Your task to perform on an android device: Open Youtube and go to "Your channel" Image 0: 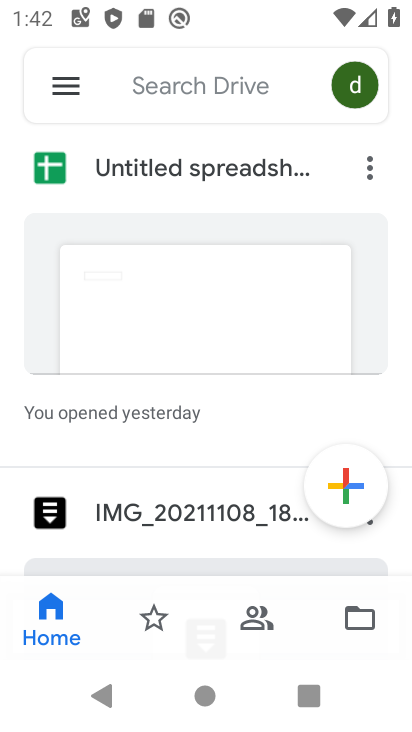
Step 0: press back button
Your task to perform on an android device: Open Youtube and go to "Your channel" Image 1: 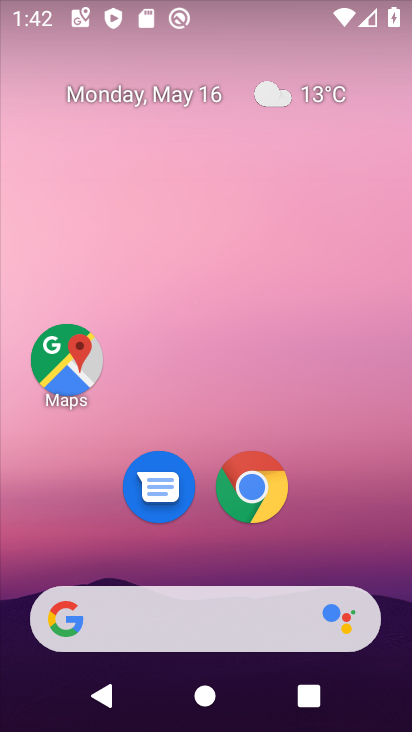
Step 1: drag from (340, 546) to (233, 2)
Your task to perform on an android device: Open Youtube and go to "Your channel" Image 2: 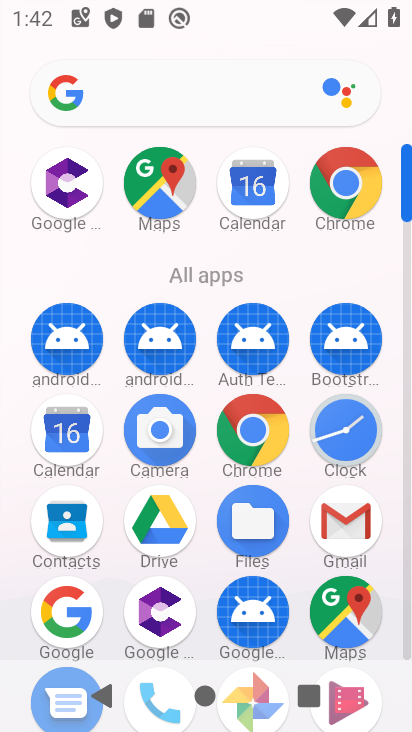
Step 2: drag from (3, 545) to (20, 176)
Your task to perform on an android device: Open Youtube and go to "Your channel" Image 3: 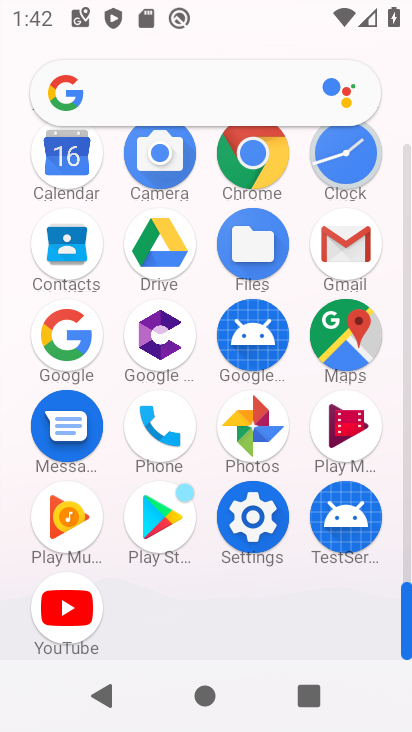
Step 3: click (64, 599)
Your task to perform on an android device: Open Youtube and go to "Your channel" Image 4: 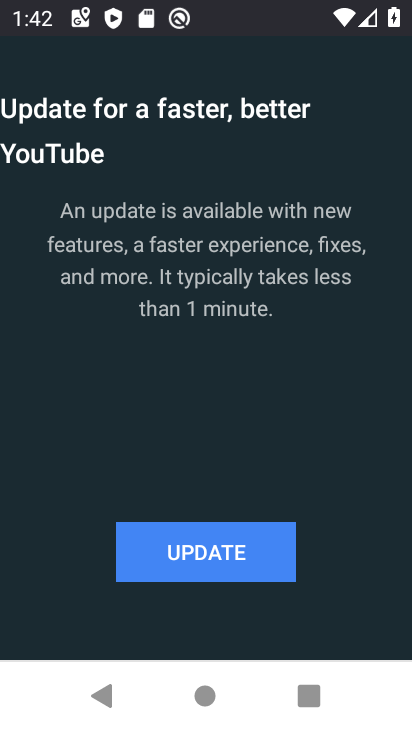
Step 4: click (234, 555)
Your task to perform on an android device: Open Youtube and go to "Your channel" Image 5: 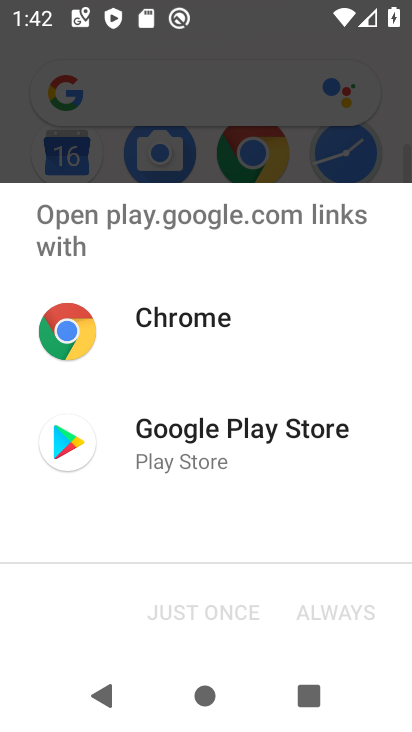
Step 5: click (201, 429)
Your task to perform on an android device: Open Youtube and go to "Your channel" Image 6: 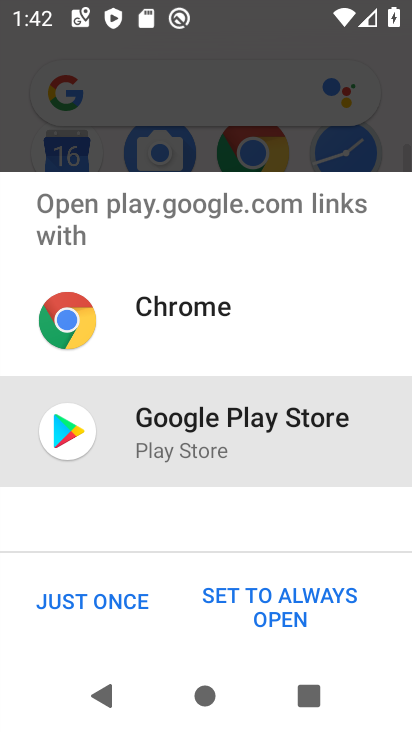
Step 6: click (103, 605)
Your task to perform on an android device: Open Youtube and go to "Your channel" Image 7: 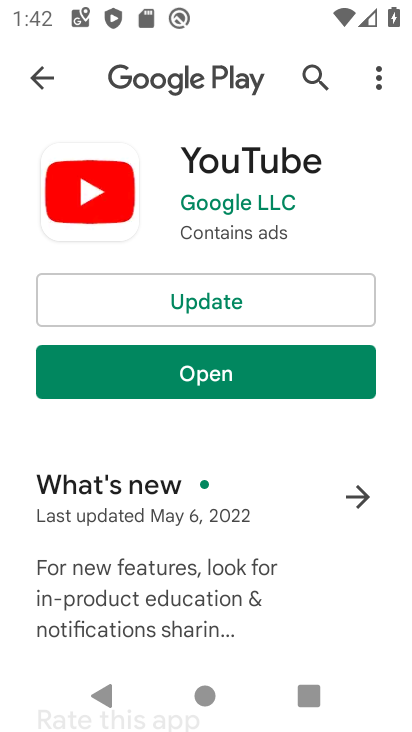
Step 7: click (240, 299)
Your task to perform on an android device: Open Youtube and go to "Your channel" Image 8: 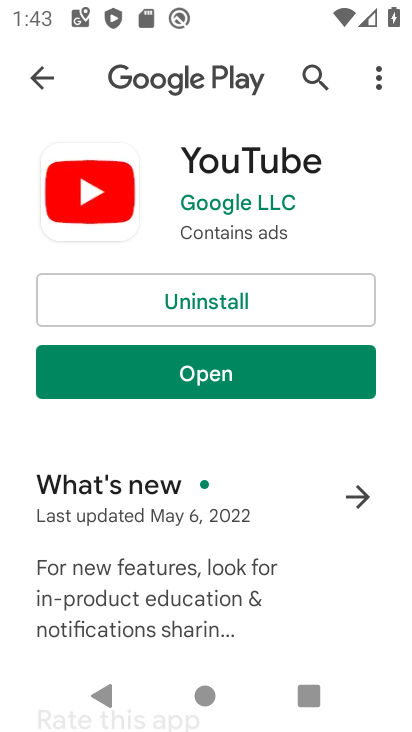
Step 8: click (241, 364)
Your task to perform on an android device: Open Youtube and go to "Your channel" Image 9: 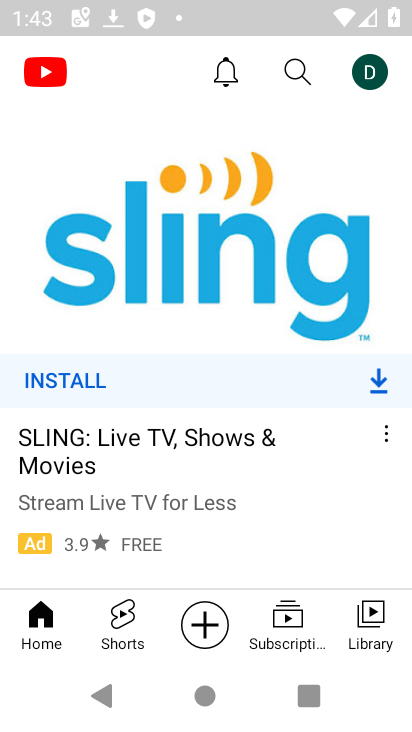
Step 9: click (381, 623)
Your task to perform on an android device: Open Youtube and go to "Your channel" Image 10: 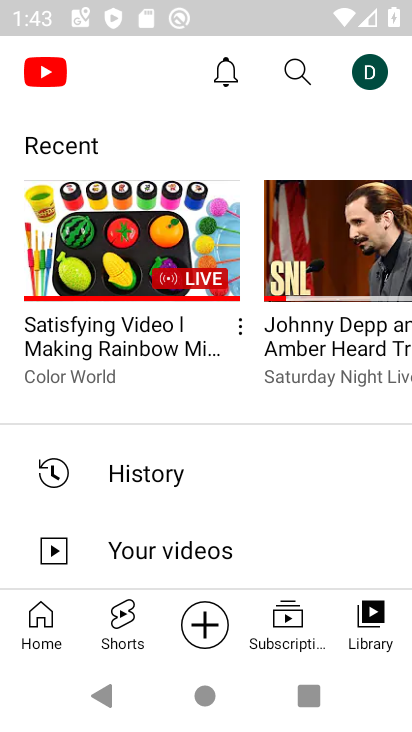
Step 10: drag from (371, 232) to (105, 233)
Your task to perform on an android device: Open Youtube and go to "Your channel" Image 11: 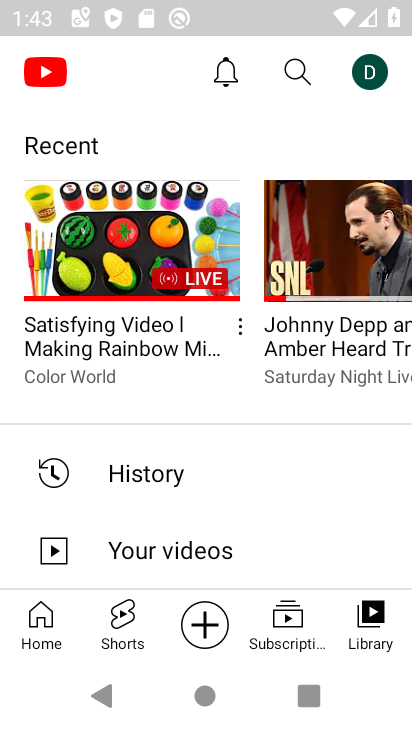
Step 11: drag from (339, 261) to (83, 285)
Your task to perform on an android device: Open Youtube and go to "Your channel" Image 12: 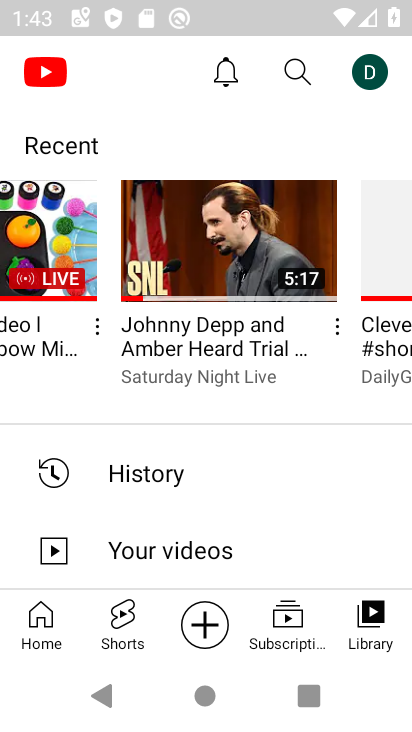
Step 12: drag from (367, 280) to (89, 271)
Your task to perform on an android device: Open Youtube and go to "Your channel" Image 13: 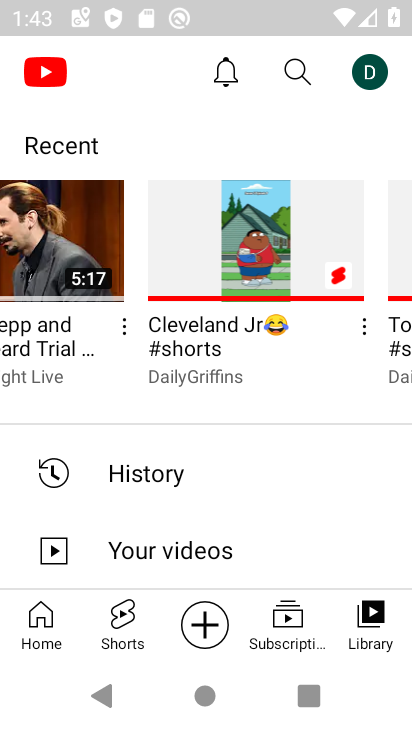
Step 13: drag from (289, 269) to (45, 247)
Your task to perform on an android device: Open Youtube and go to "Your channel" Image 14: 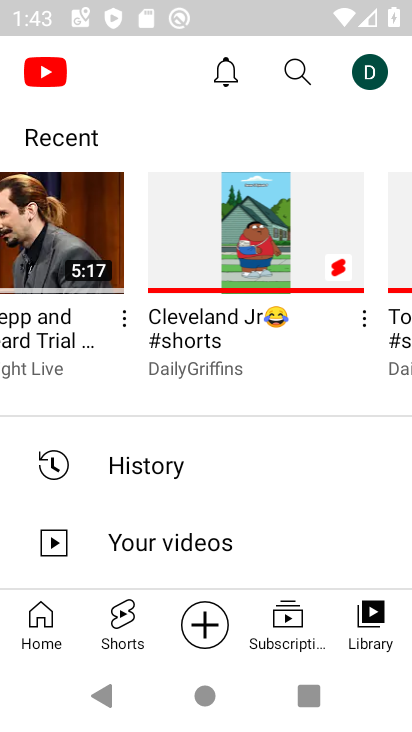
Step 14: drag from (361, 262) to (15, 244)
Your task to perform on an android device: Open Youtube and go to "Your channel" Image 15: 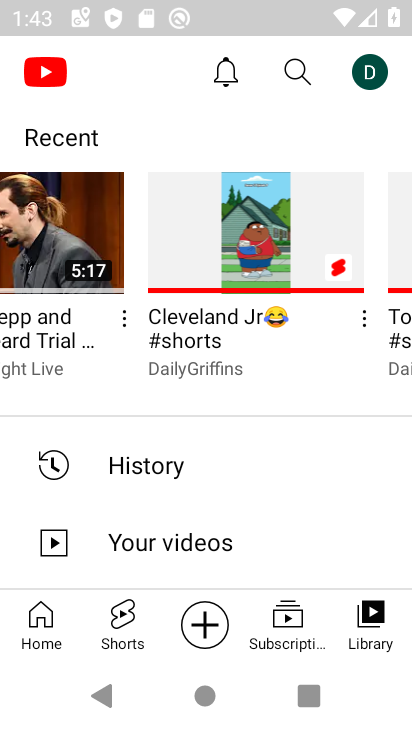
Step 15: drag from (366, 237) to (63, 220)
Your task to perform on an android device: Open Youtube and go to "Your channel" Image 16: 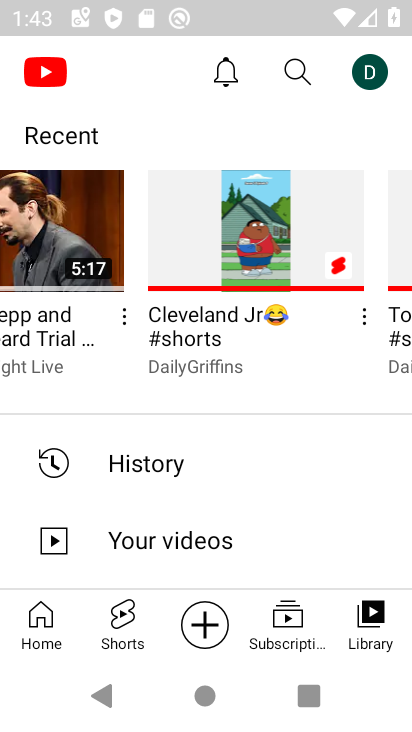
Step 16: drag from (329, 241) to (56, 246)
Your task to perform on an android device: Open Youtube and go to "Your channel" Image 17: 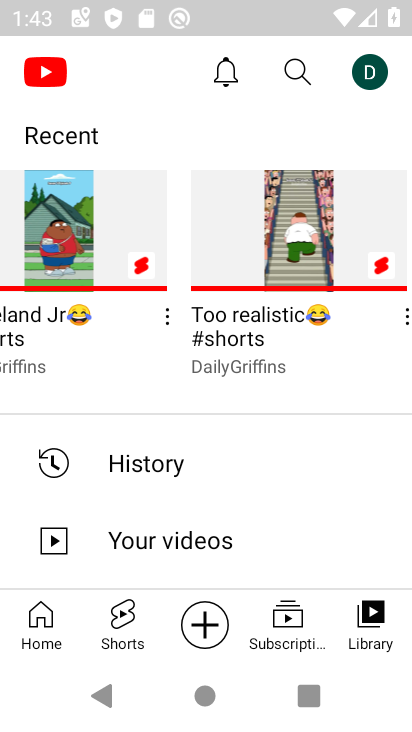
Step 17: drag from (243, 248) to (17, 237)
Your task to perform on an android device: Open Youtube and go to "Your channel" Image 18: 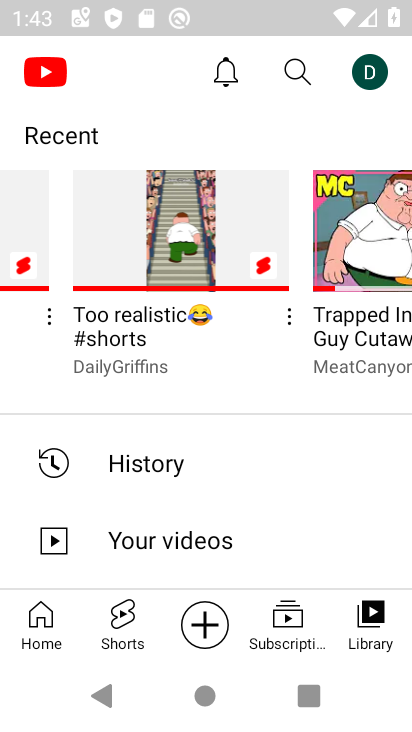
Step 18: drag from (306, 213) to (80, 212)
Your task to perform on an android device: Open Youtube and go to "Your channel" Image 19: 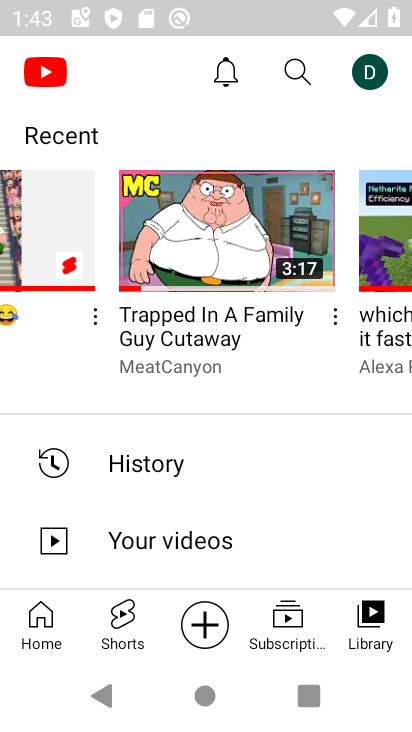
Step 19: drag from (396, 214) to (118, 224)
Your task to perform on an android device: Open Youtube and go to "Your channel" Image 20: 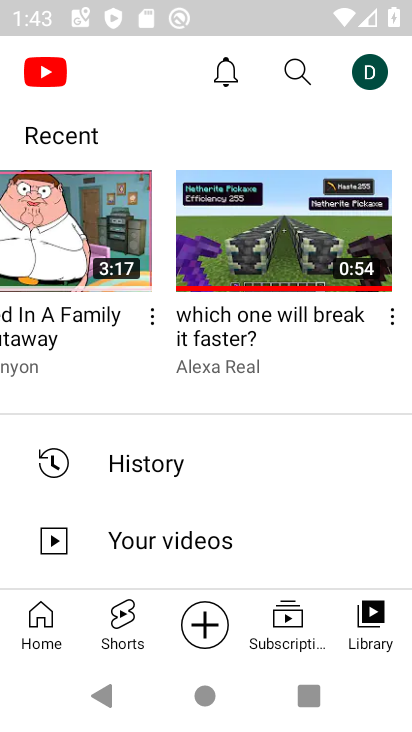
Step 20: drag from (264, 241) to (88, 248)
Your task to perform on an android device: Open Youtube and go to "Your channel" Image 21: 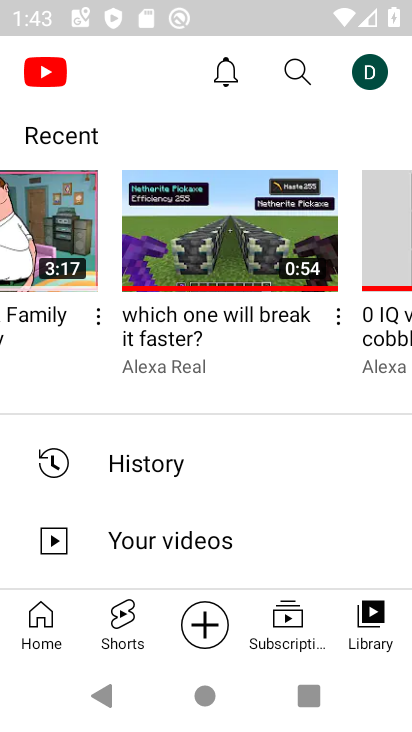
Step 21: drag from (271, 518) to (279, 123)
Your task to perform on an android device: Open Youtube and go to "Your channel" Image 22: 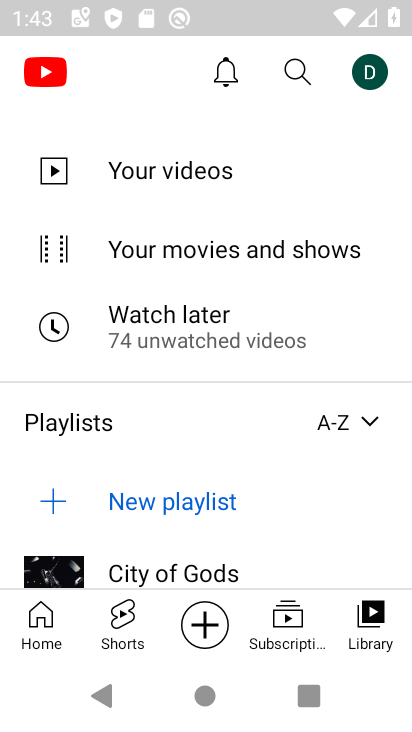
Step 22: drag from (272, 192) to (251, 429)
Your task to perform on an android device: Open Youtube and go to "Your channel" Image 23: 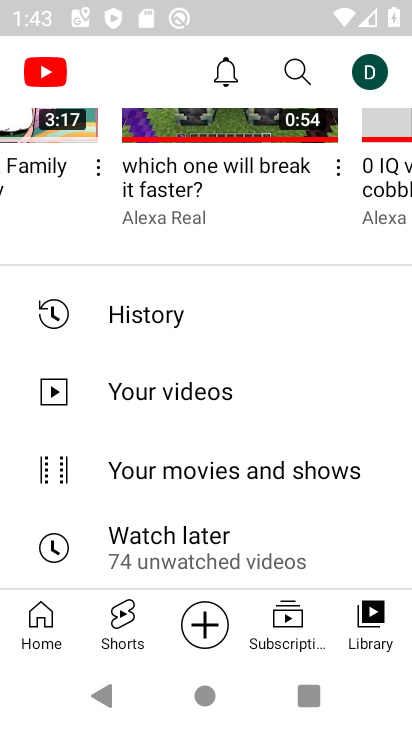
Step 23: drag from (260, 478) to (299, 204)
Your task to perform on an android device: Open Youtube and go to "Your channel" Image 24: 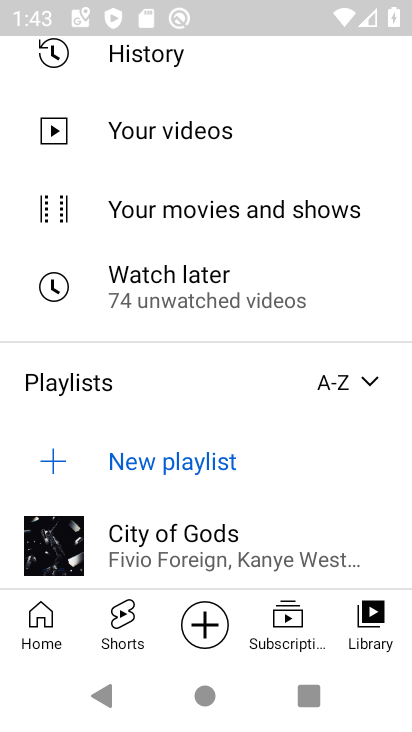
Step 24: drag from (298, 139) to (293, 379)
Your task to perform on an android device: Open Youtube and go to "Your channel" Image 25: 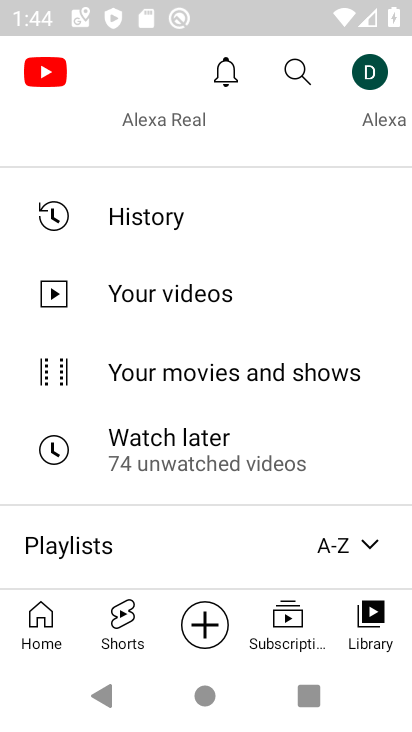
Step 25: drag from (264, 215) to (309, 513)
Your task to perform on an android device: Open Youtube and go to "Your channel" Image 26: 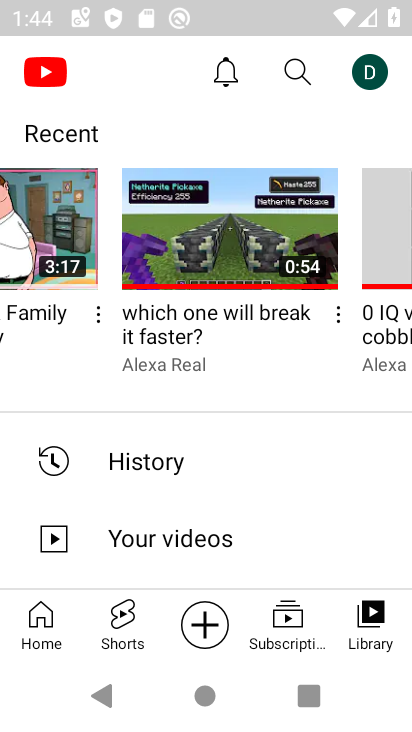
Step 26: drag from (349, 238) to (64, 253)
Your task to perform on an android device: Open Youtube and go to "Your channel" Image 27: 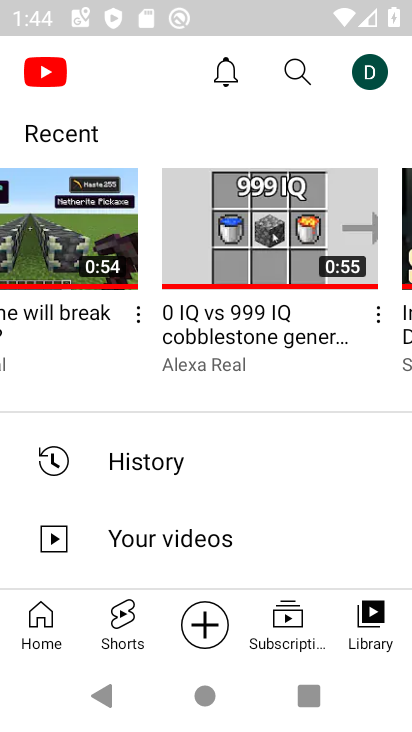
Step 27: drag from (360, 241) to (42, 243)
Your task to perform on an android device: Open Youtube and go to "Your channel" Image 28: 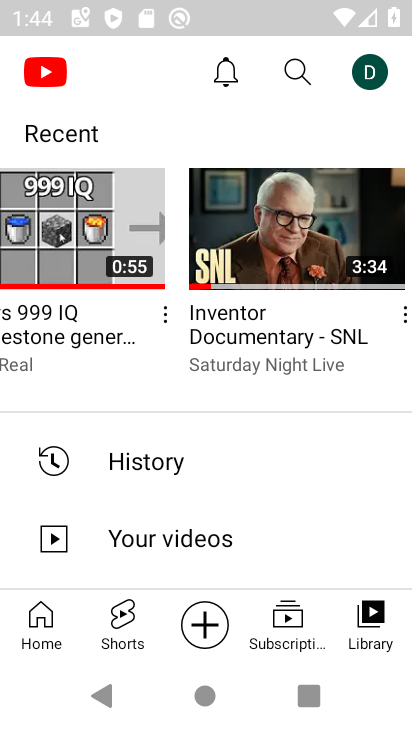
Step 28: drag from (251, 241) to (38, 240)
Your task to perform on an android device: Open Youtube and go to "Your channel" Image 29: 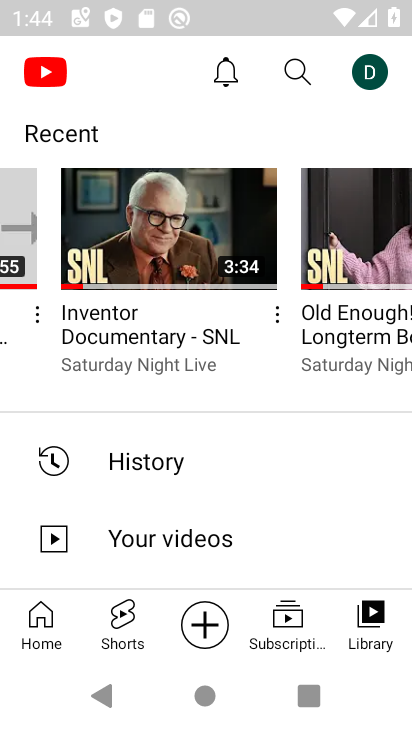
Step 29: drag from (318, 466) to (336, 202)
Your task to perform on an android device: Open Youtube and go to "Your channel" Image 30: 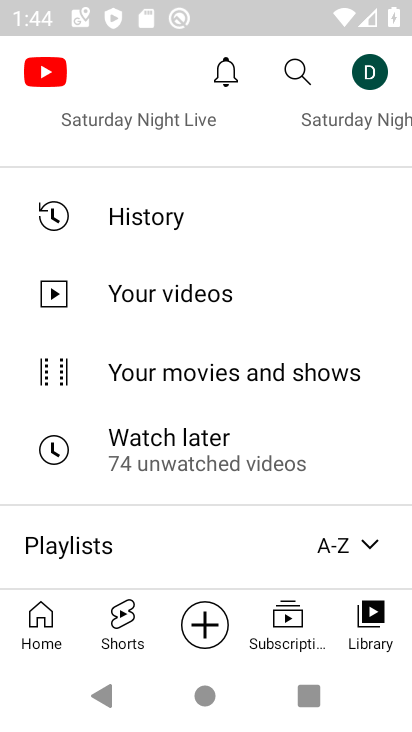
Step 30: click (208, 286)
Your task to perform on an android device: Open Youtube and go to "Your channel" Image 31: 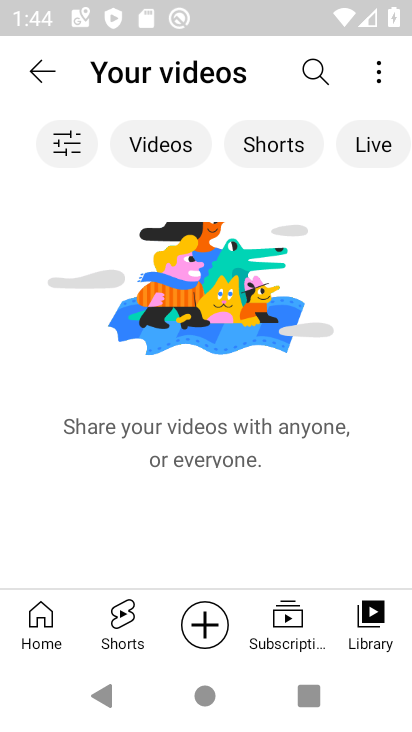
Step 31: task complete